Your task to perform on an android device: set an alarm Image 0: 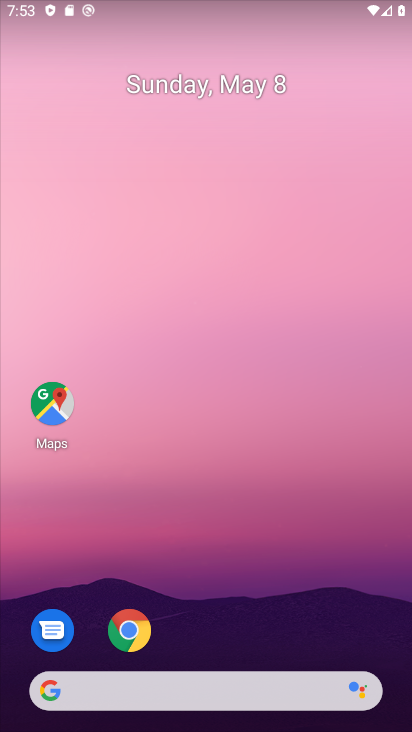
Step 0: drag from (209, 682) to (251, 32)
Your task to perform on an android device: set an alarm Image 1: 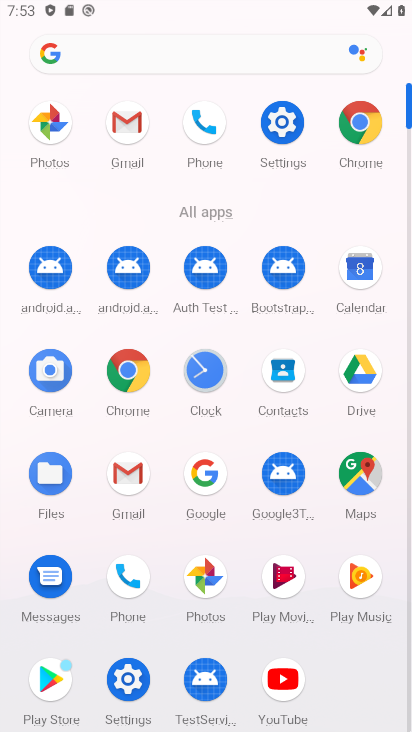
Step 1: click (191, 375)
Your task to perform on an android device: set an alarm Image 2: 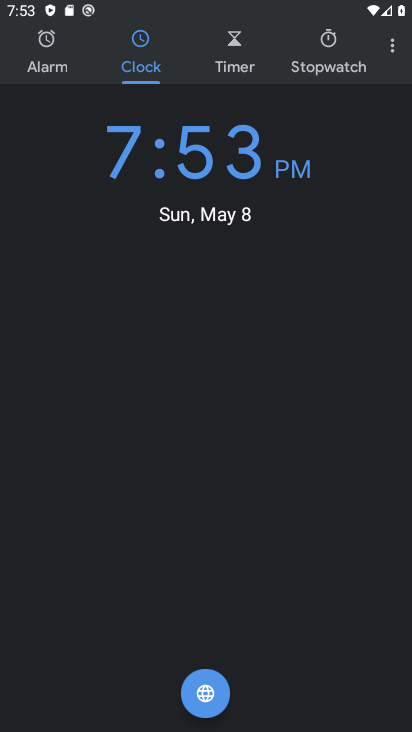
Step 2: click (25, 61)
Your task to perform on an android device: set an alarm Image 3: 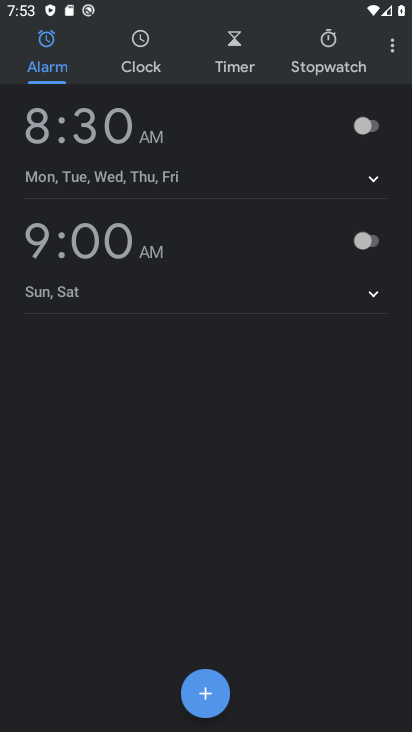
Step 3: click (218, 674)
Your task to perform on an android device: set an alarm Image 4: 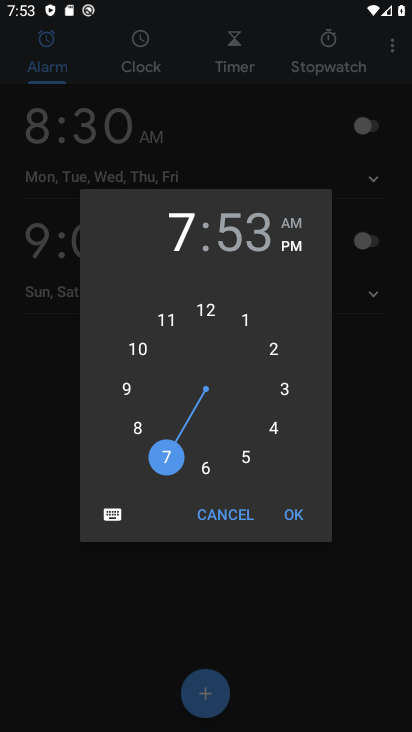
Step 4: click (282, 513)
Your task to perform on an android device: set an alarm Image 5: 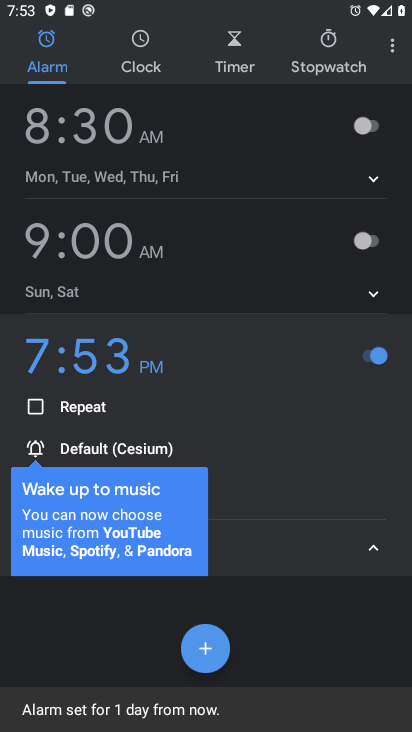
Step 5: task complete